Your task to perform on an android device: turn smart compose on in the gmail app Image 0: 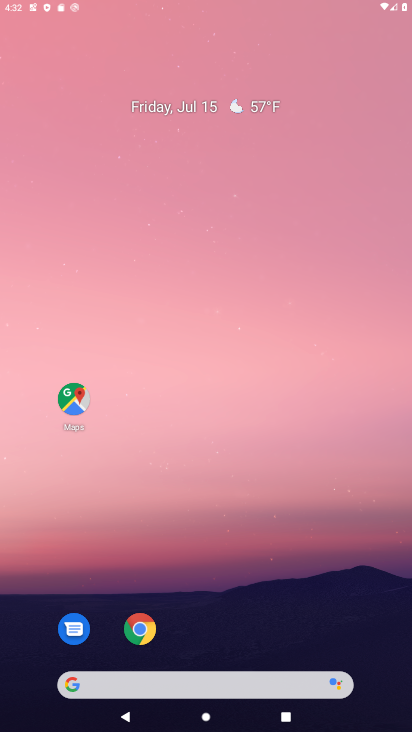
Step 0: press home button
Your task to perform on an android device: turn smart compose on in the gmail app Image 1: 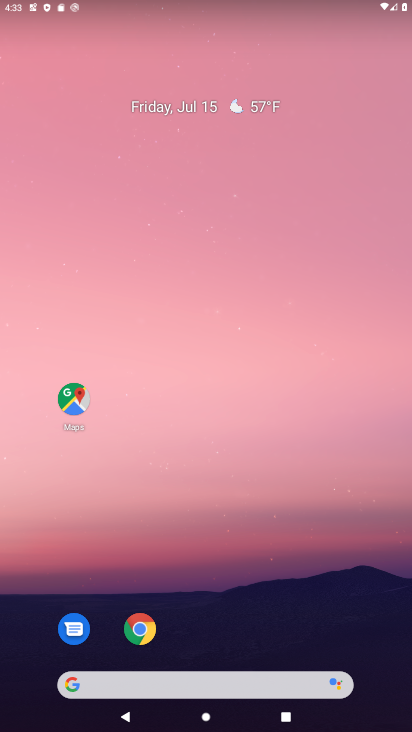
Step 1: drag from (219, 625) to (338, 0)
Your task to perform on an android device: turn smart compose on in the gmail app Image 2: 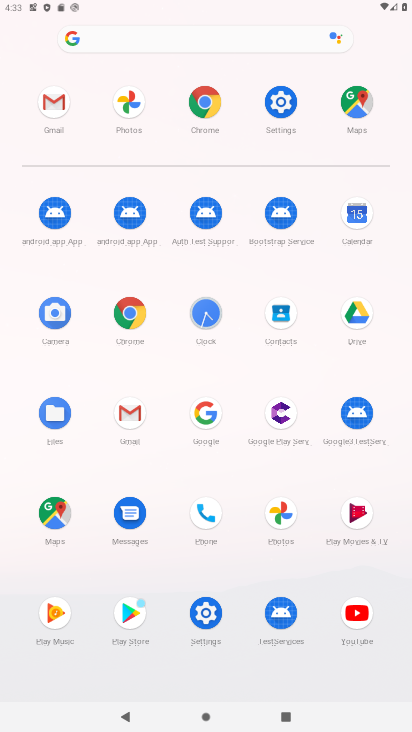
Step 2: click (58, 100)
Your task to perform on an android device: turn smart compose on in the gmail app Image 3: 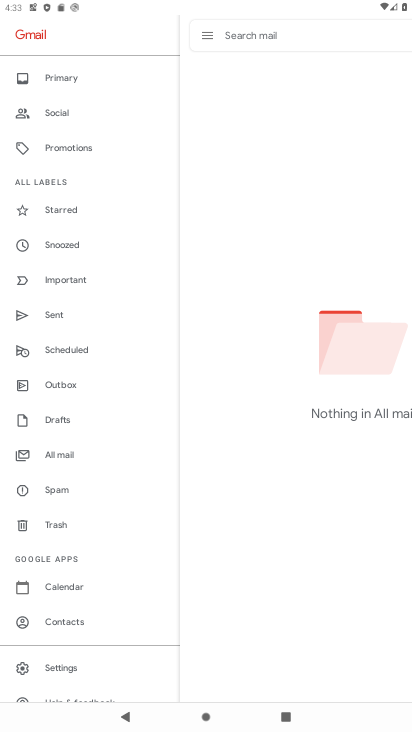
Step 3: click (58, 665)
Your task to perform on an android device: turn smart compose on in the gmail app Image 4: 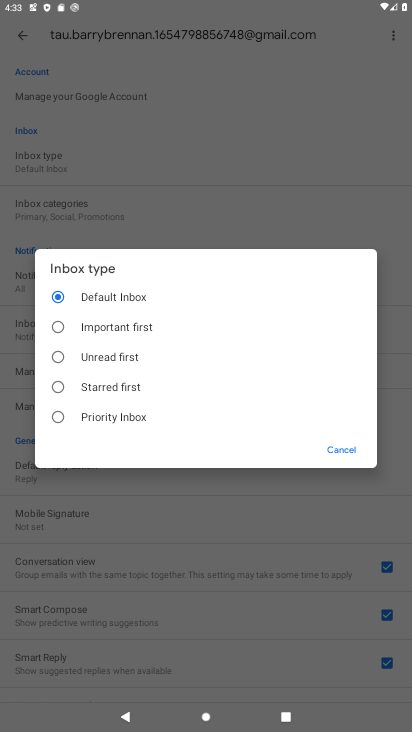
Step 4: click (328, 447)
Your task to perform on an android device: turn smart compose on in the gmail app Image 5: 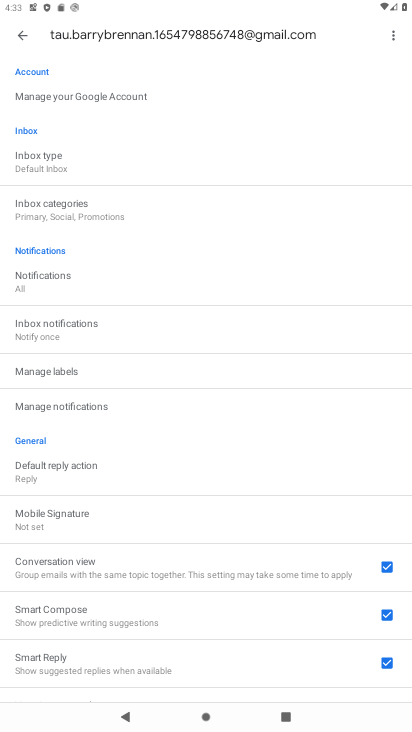
Step 5: task complete